Your task to perform on an android device: What's the price of the 1000-Watt EGO Power+ Snow Blower? Image 0: 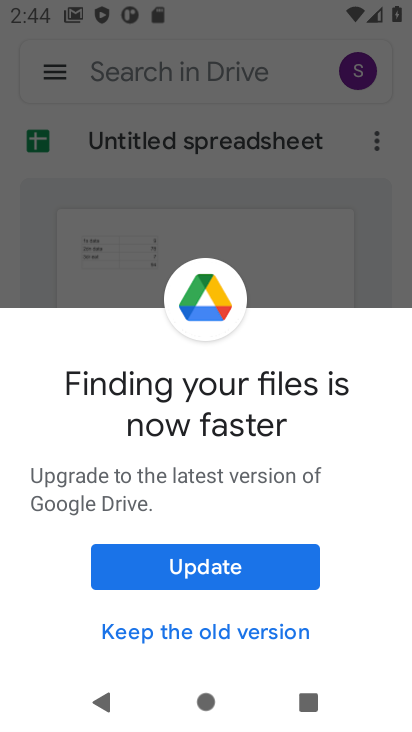
Step 0: press home button
Your task to perform on an android device: What's the price of the 1000-Watt EGO Power+ Snow Blower? Image 1: 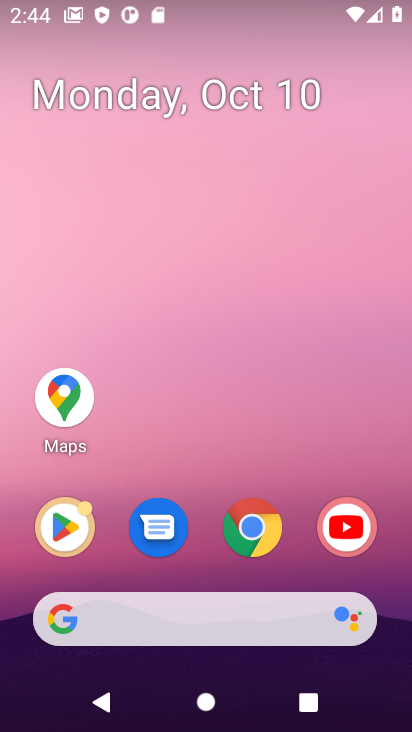
Step 1: click (227, 627)
Your task to perform on an android device: What's the price of the 1000-Watt EGO Power+ Snow Blower? Image 2: 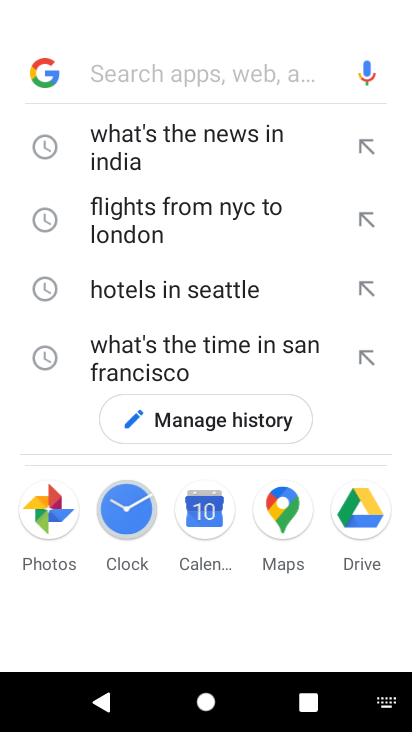
Step 2: type "What's the price of the 1000-Watt EGO Power+ Snow Blower"
Your task to perform on an android device: What's the price of the 1000-Watt EGO Power+ Snow Blower? Image 3: 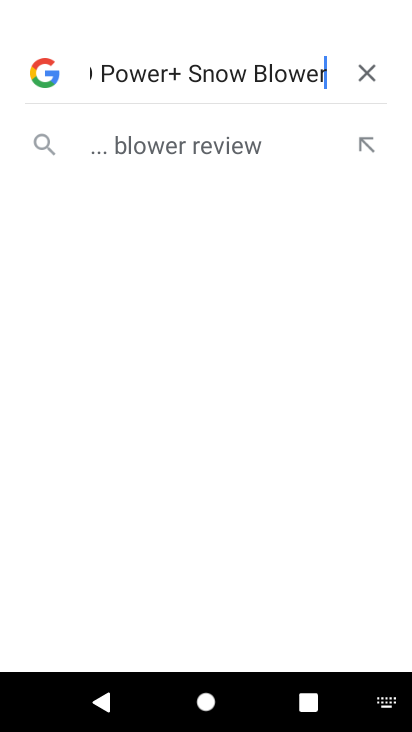
Step 3: press enter
Your task to perform on an android device: What's the price of the 1000-Watt EGO Power+ Snow Blower? Image 4: 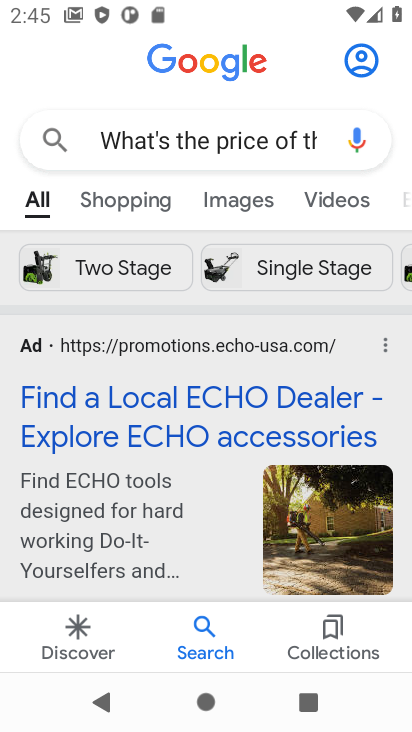
Step 4: click (149, 417)
Your task to perform on an android device: What's the price of the 1000-Watt EGO Power+ Snow Blower? Image 5: 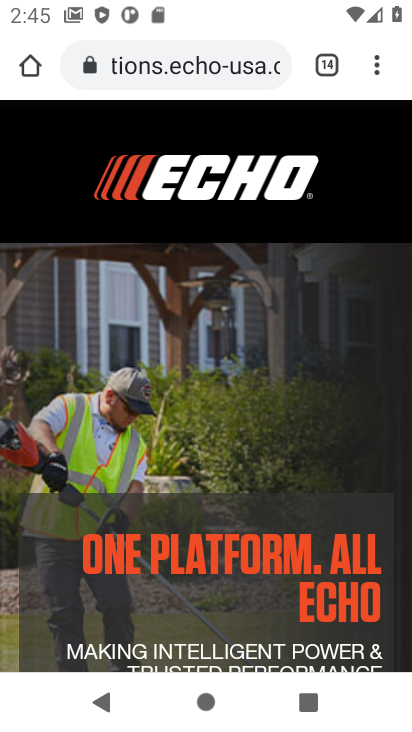
Step 5: task complete